Your task to perform on an android device: choose inbox layout in the gmail app Image 0: 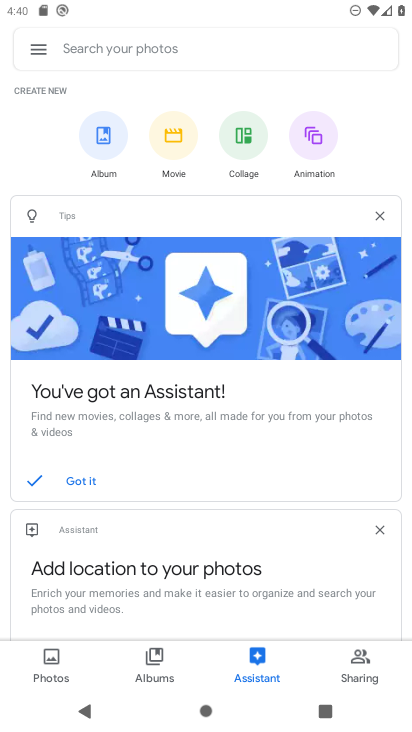
Step 0: drag from (230, 435) to (290, 74)
Your task to perform on an android device: choose inbox layout in the gmail app Image 1: 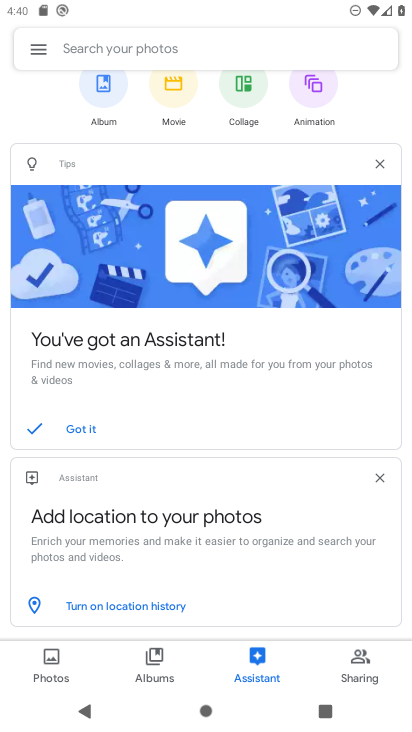
Step 1: press home button
Your task to perform on an android device: choose inbox layout in the gmail app Image 2: 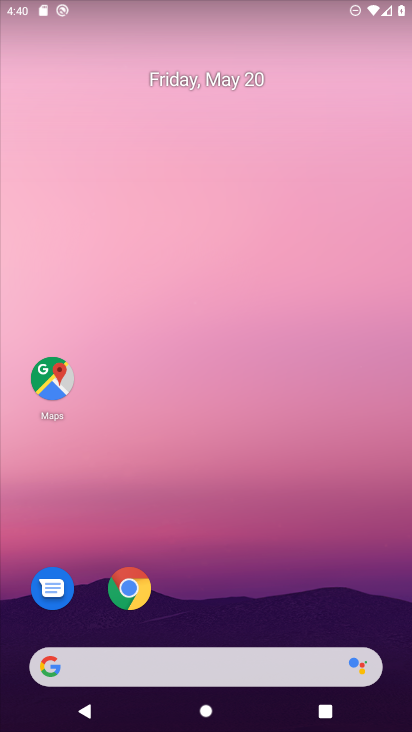
Step 2: drag from (227, 575) to (215, 162)
Your task to perform on an android device: choose inbox layout in the gmail app Image 3: 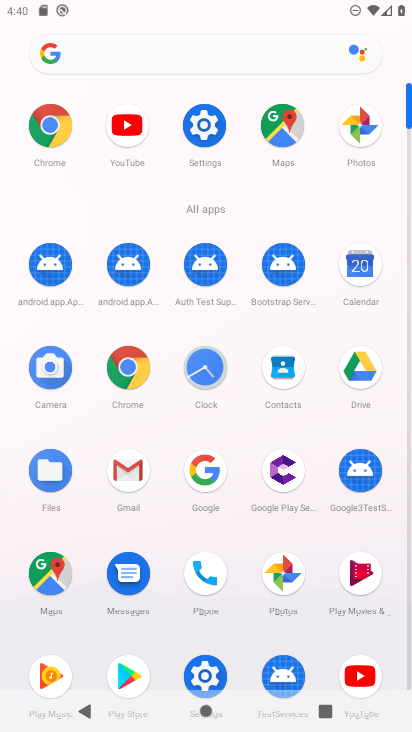
Step 3: click (124, 480)
Your task to perform on an android device: choose inbox layout in the gmail app Image 4: 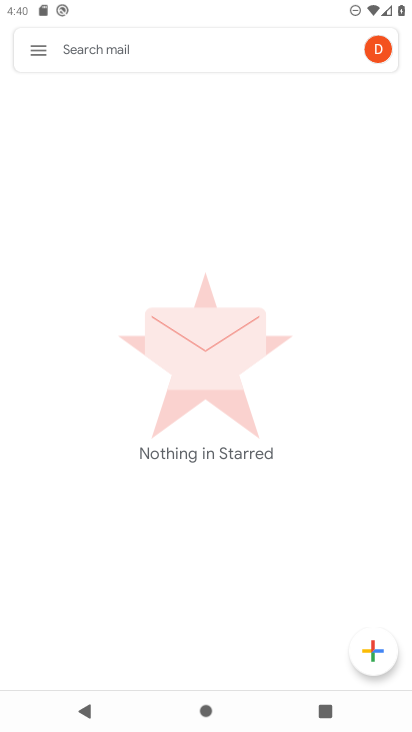
Step 4: click (40, 53)
Your task to perform on an android device: choose inbox layout in the gmail app Image 5: 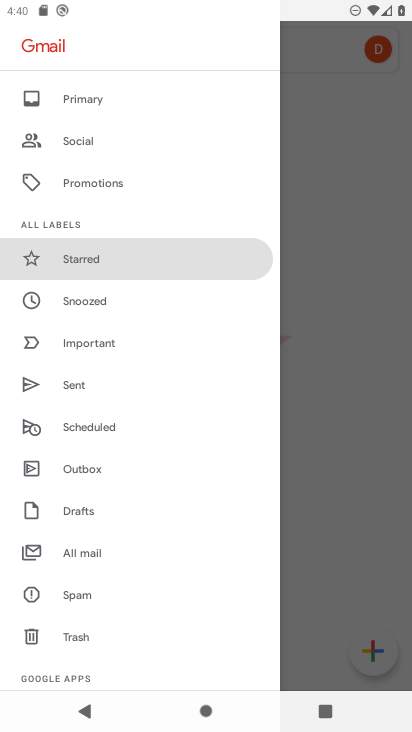
Step 5: drag from (98, 520) to (119, 344)
Your task to perform on an android device: choose inbox layout in the gmail app Image 6: 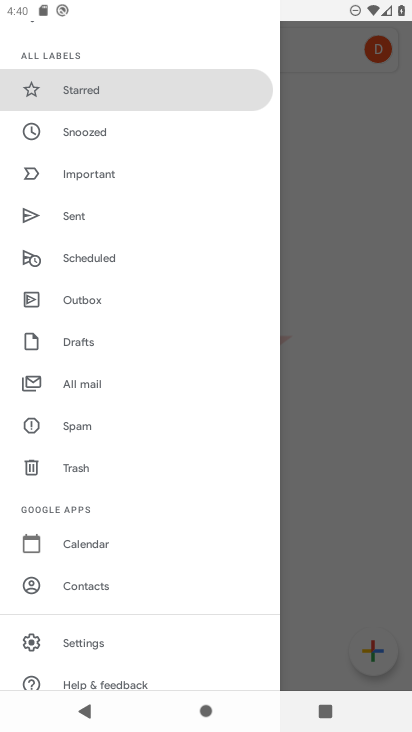
Step 6: click (90, 645)
Your task to perform on an android device: choose inbox layout in the gmail app Image 7: 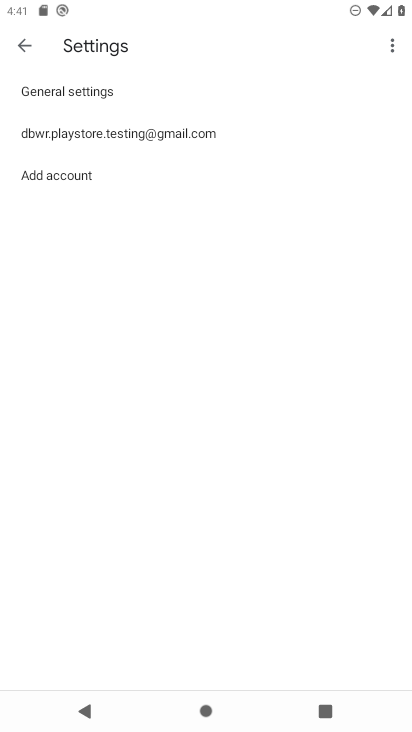
Step 7: click (193, 132)
Your task to perform on an android device: choose inbox layout in the gmail app Image 8: 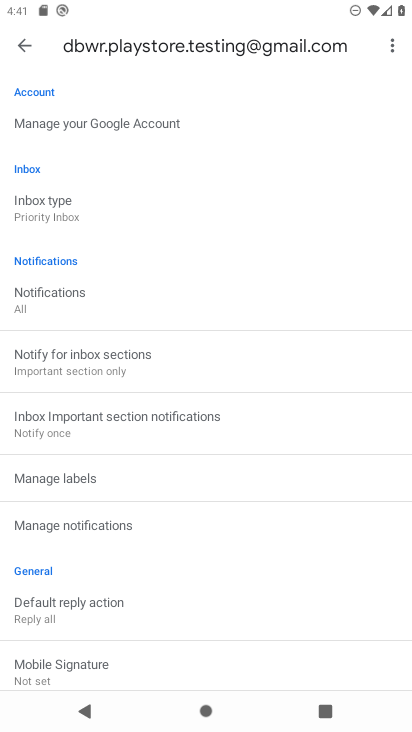
Step 8: click (40, 212)
Your task to perform on an android device: choose inbox layout in the gmail app Image 9: 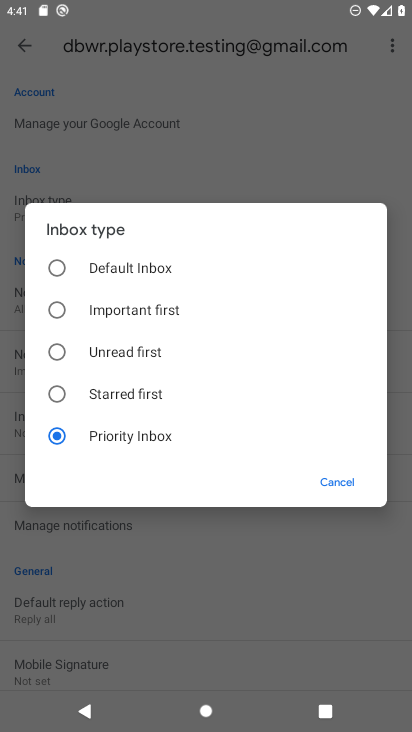
Step 9: click (57, 275)
Your task to perform on an android device: choose inbox layout in the gmail app Image 10: 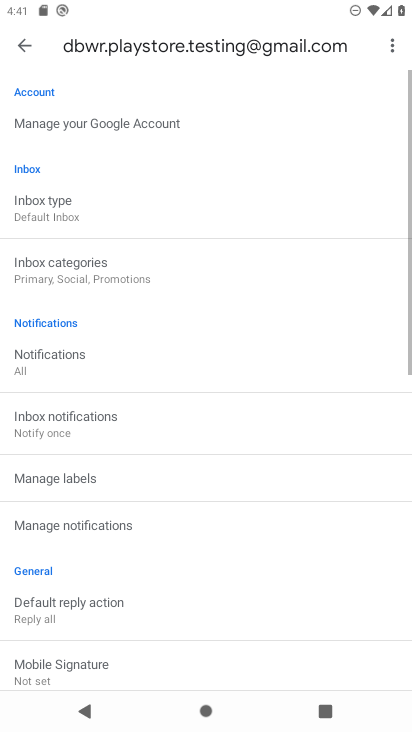
Step 10: task complete